Your task to perform on an android device: set an alarm Image 0: 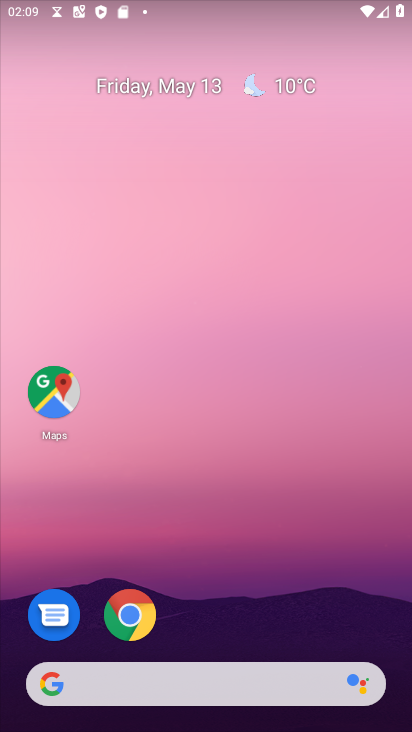
Step 0: drag from (219, 562) to (184, 123)
Your task to perform on an android device: set an alarm Image 1: 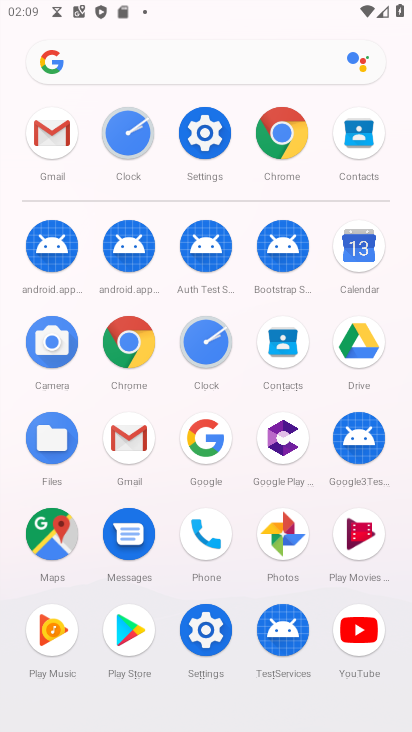
Step 1: click (201, 327)
Your task to perform on an android device: set an alarm Image 2: 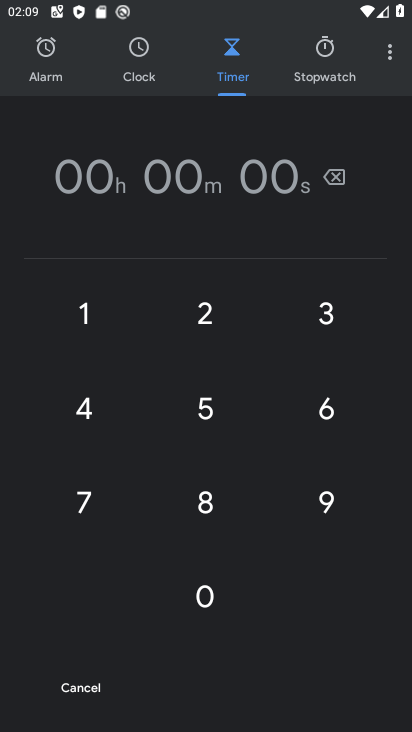
Step 2: click (51, 60)
Your task to perform on an android device: set an alarm Image 3: 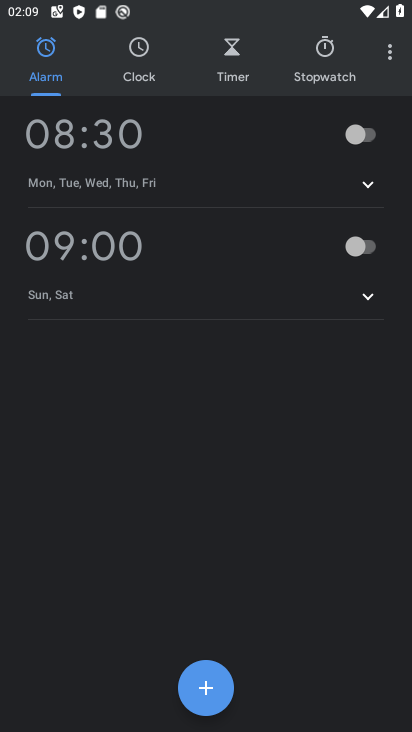
Step 3: click (361, 131)
Your task to perform on an android device: set an alarm Image 4: 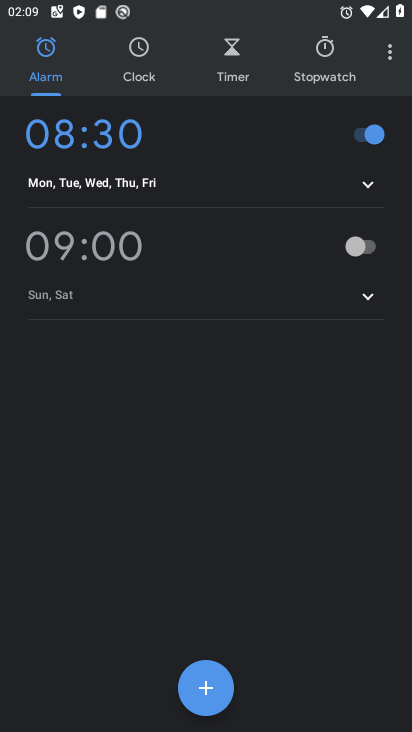
Step 4: click (349, 241)
Your task to perform on an android device: set an alarm Image 5: 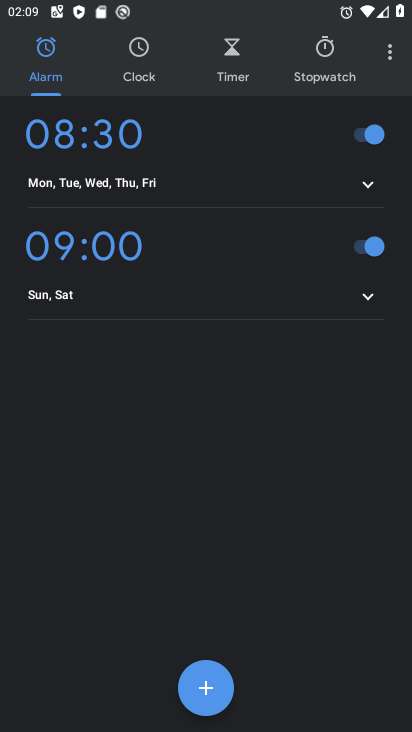
Step 5: task complete